Your task to perform on an android device: turn notification dots on Image 0: 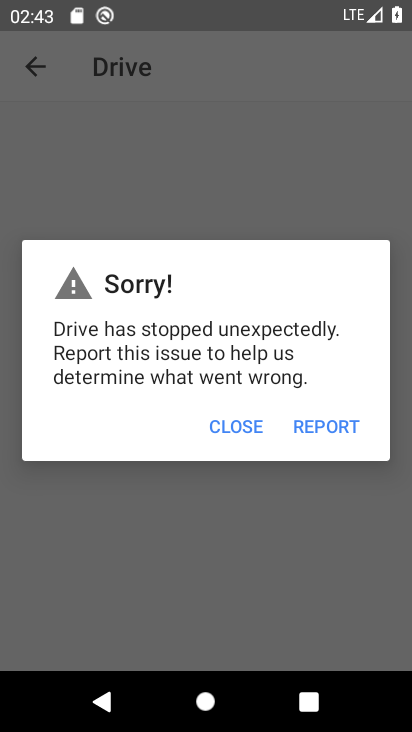
Step 0: press home button
Your task to perform on an android device: turn notification dots on Image 1: 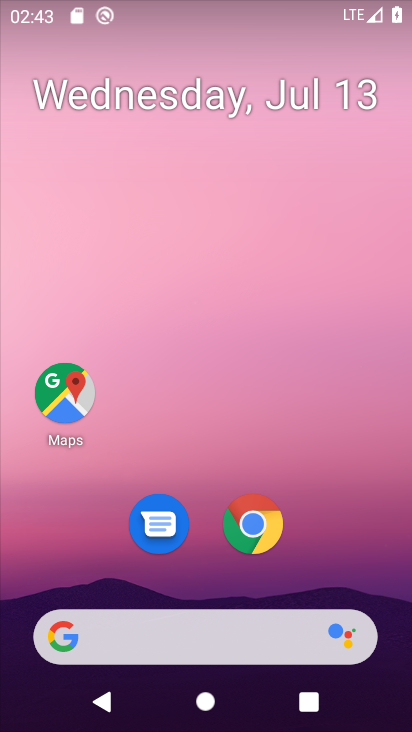
Step 1: drag from (348, 517) to (339, 30)
Your task to perform on an android device: turn notification dots on Image 2: 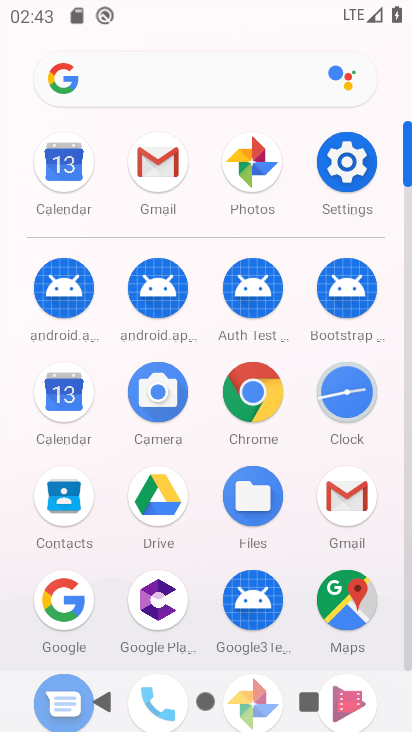
Step 2: click (352, 163)
Your task to perform on an android device: turn notification dots on Image 3: 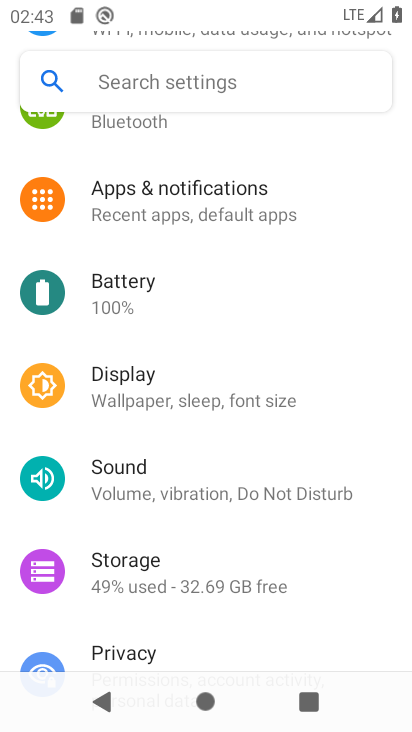
Step 3: click (262, 204)
Your task to perform on an android device: turn notification dots on Image 4: 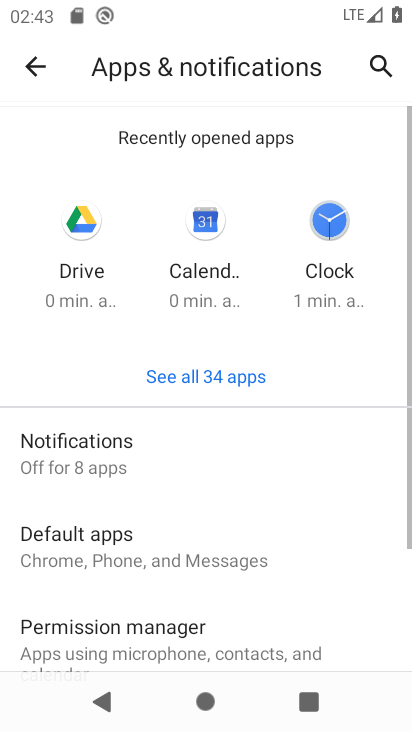
Step 4: click (83, 461)
Your task to perform on an android device: turn notification dots on Image 5: 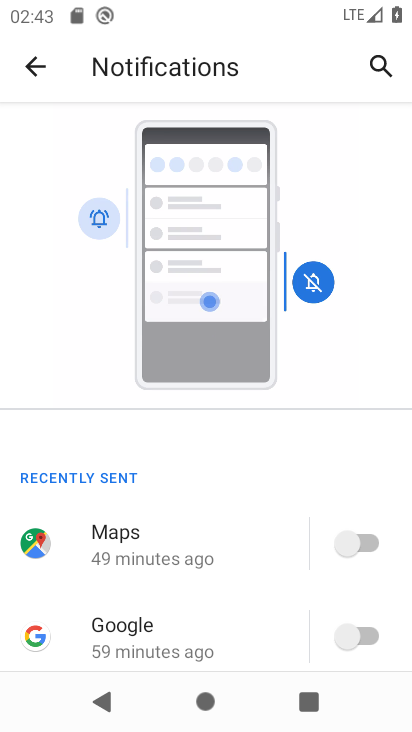
Step 5: drag from (207, 495) to (289, 71)
Your task to perform on an android device: turn notification dots on Image 6: 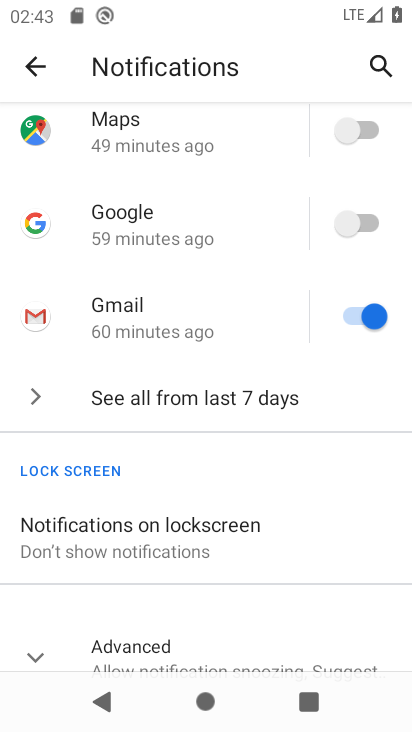
Step 6: click (34, 658)
Your task to perform on an android device: turn notification dots on Image 7: 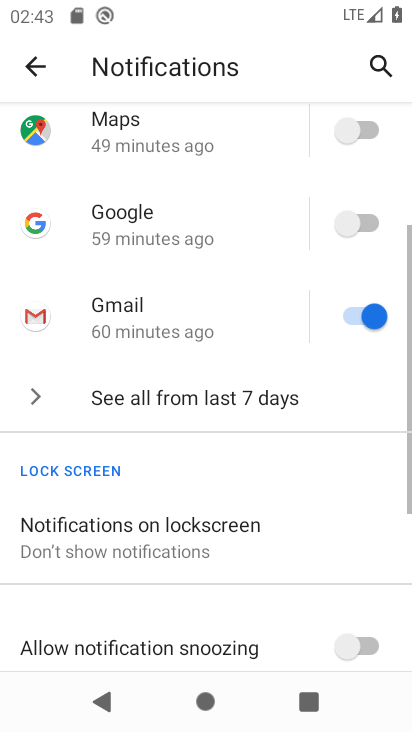
Step 7: drag from (214, 541) to (283, 97)
Your task to perform on an android device: turn notification dots on Image 8: 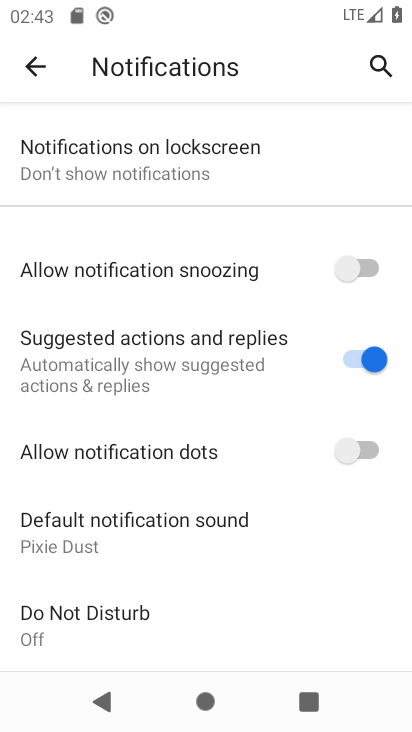
Step 8: click (358, 442)
Your task to perform on an android device: turn notification dots on Image 9: 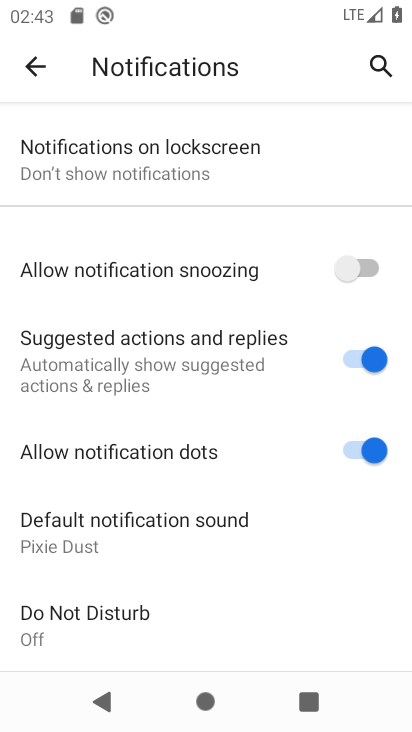
Step 9: task complete